Your task to perform on an android device: Search for vegetarian restaurants on Maps Image 0: 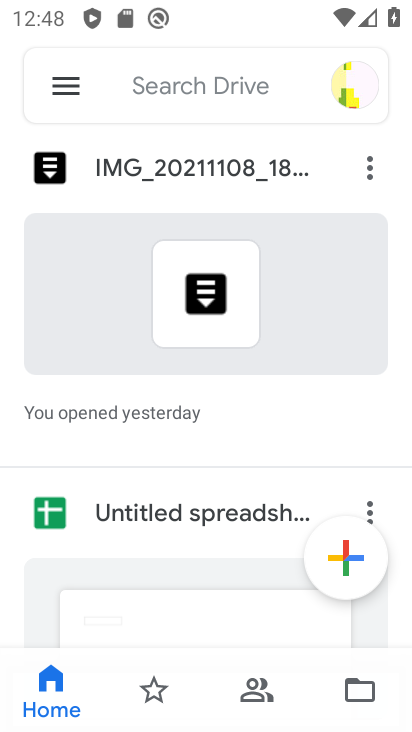
Step 0: press back button
Your task to perform on an android device: Search for vegetarian restaurants on Maps Image 1: 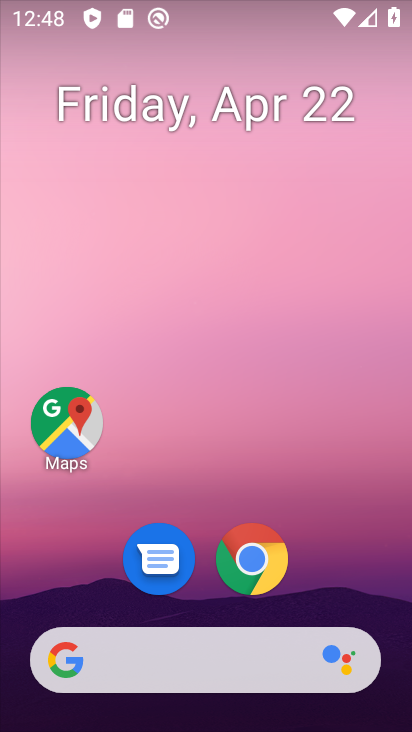
Step 1: drag from (350, 604) to (233, 14)
Your task to perform on an android device: Search for vegetarian restaurants on Maps Image 2: 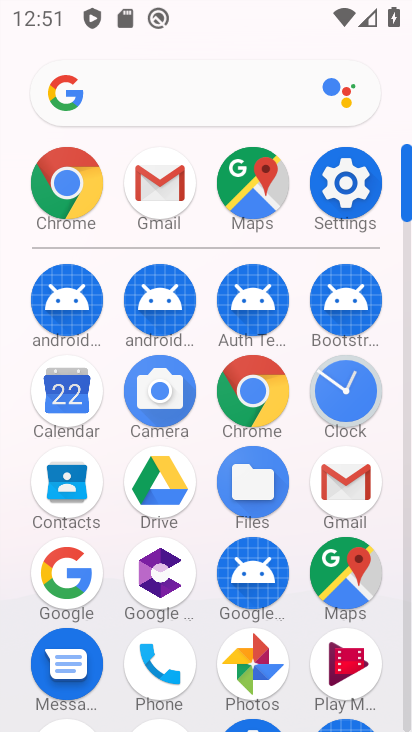
Step 2: click (331, 588)
Your task to perform on an android device: Search for vegetarian restaurants on Maps Image 3: 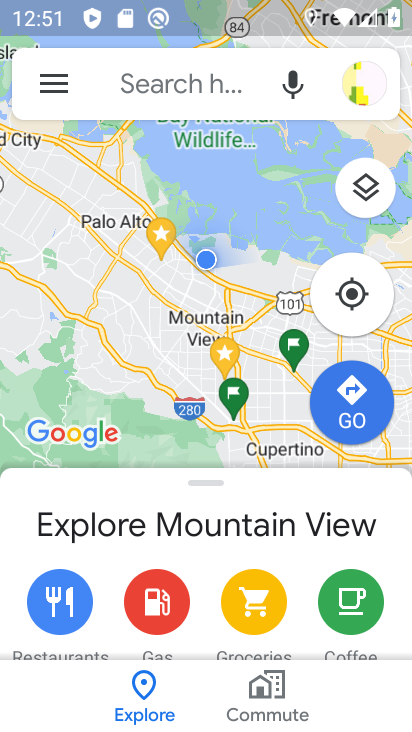
Step 3: click (152, 82)
Your task to perform on an android device: Search for vegetarian restaurants on Maps Image 4: 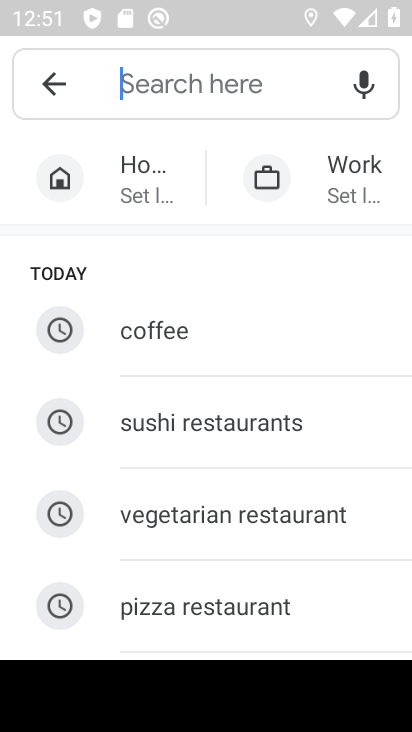
Step 4: click (210, 503)
Your task to perform on an android device: Search for vegetarian restaurants on Maps Image 5: 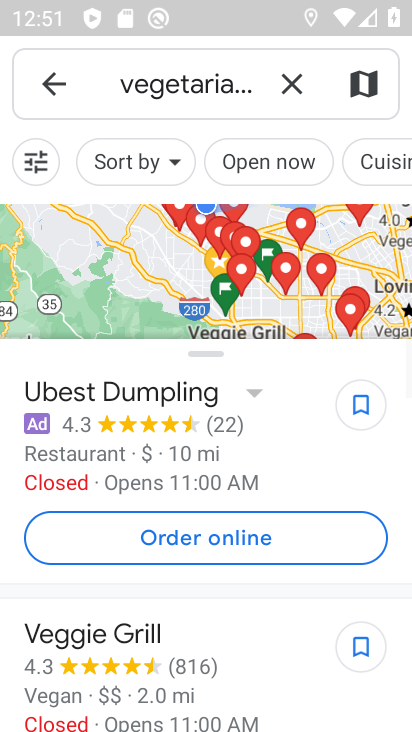
Step 5: task complete